Your task to perform on an android device: empty trash in the gmail app Image 0: 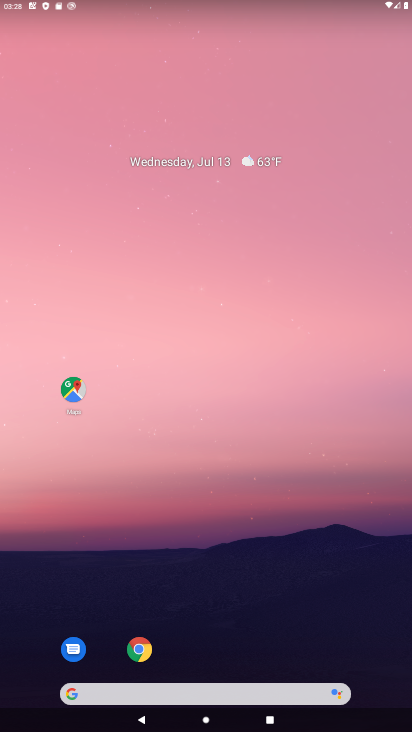
Step 0: drag from (250, 576) to (179, 0)
Your task to perform on an android device: empty trash in the gmail app Image 1: 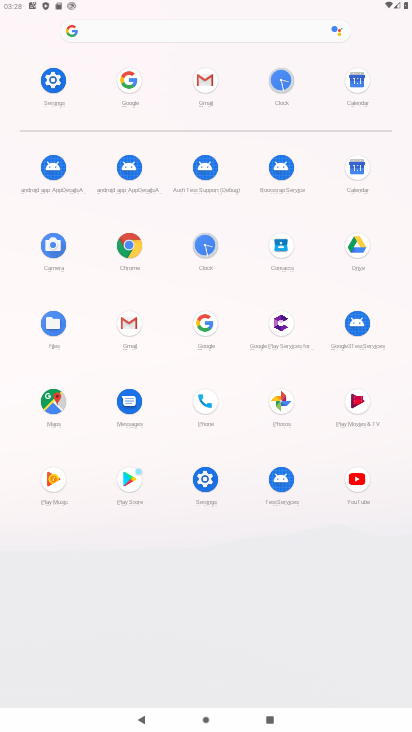
Step 1: click (202, 73)
Your task to perform on an android device: empty trash in the gmail app Image 2: 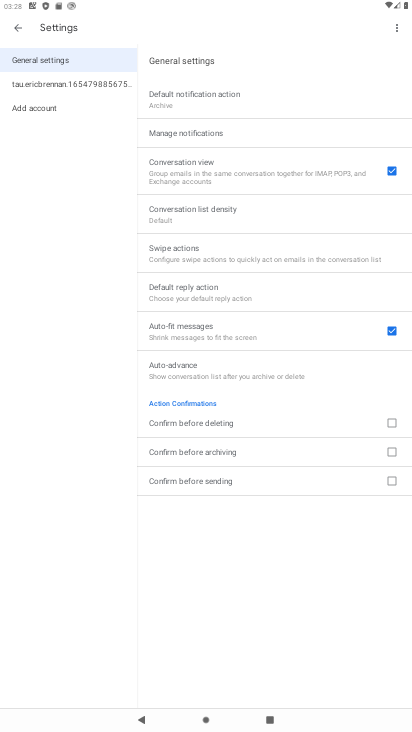
Step 2: click (16, 39)
Your task to perform on an android device: empty trash in the gmail app Image 3: 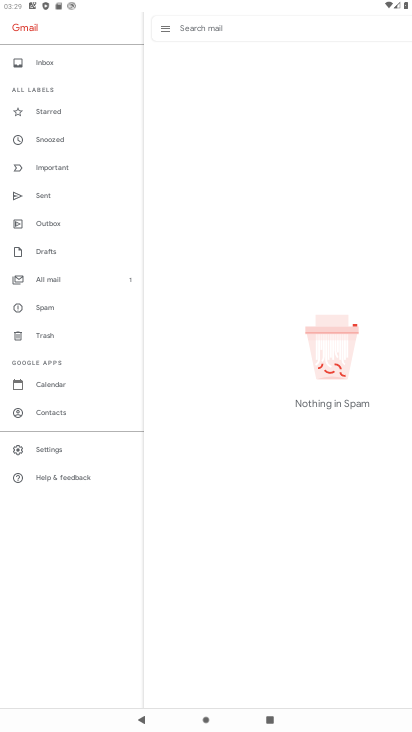
Step 3: click (37, 328)
Your task to perform on an android device: empty trash in the gmail app Image 4: 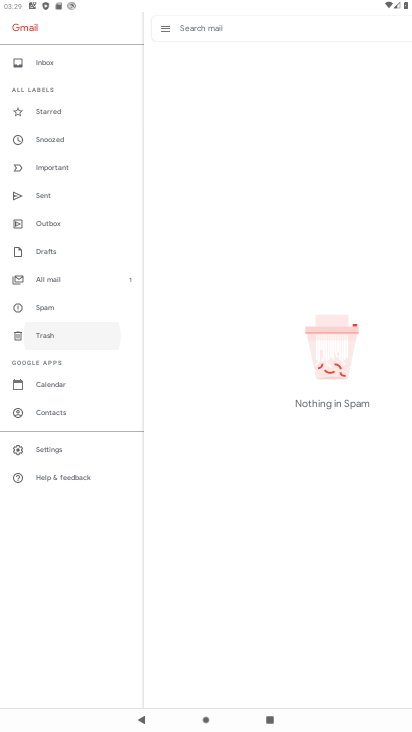
Step 4: click (37, 328)
Your task to perform on an android device: empty trash in the gmail app Image 5: 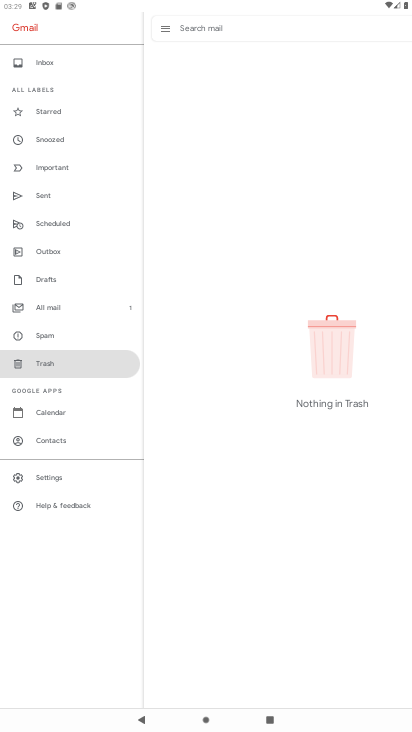
Step 5: task complete